Your task to perform on an android device: Show me recent news Image 0: 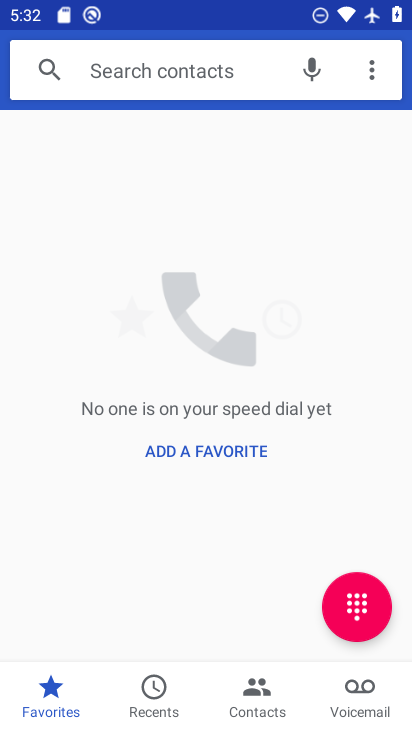
Step 0: press back button
Your task to perform on an android device: Show me recent news Image 1: 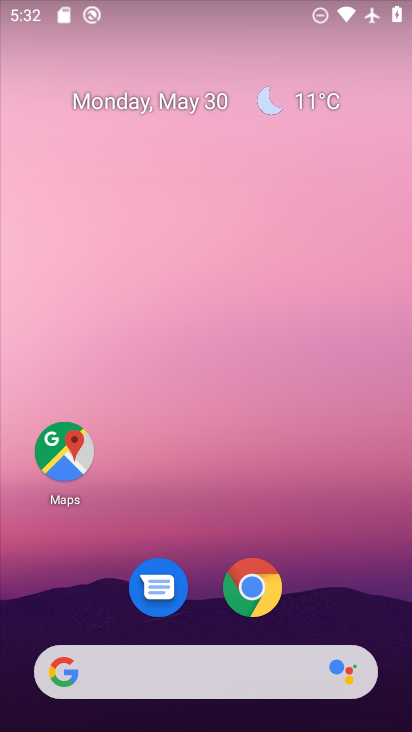
Step 1: drag from (316, 598) to (201, 34)
Your task to perform on an android device: Show me recent news Image 2: 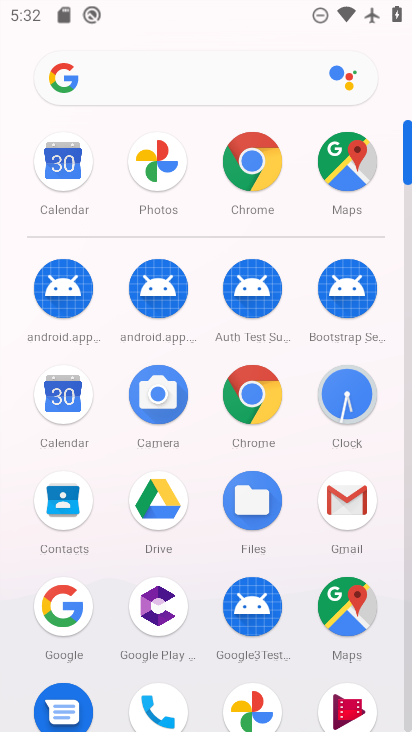
Step 2: click (248, 149)
Your task to perform on an android device: Show me recent news Image 3: 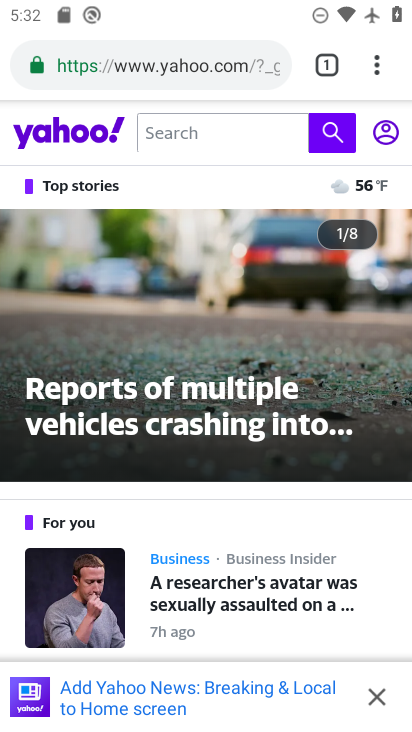
Step 3: click (173, 70)
Your task to perform on an android device: Show me recent news Image 4: 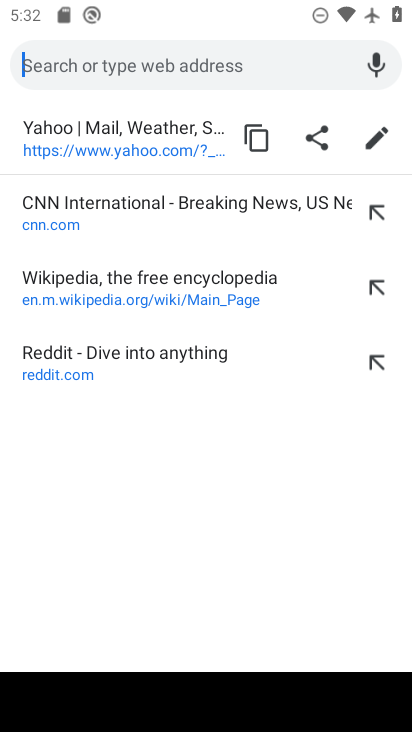
Step 4: type "Show me recent news"
Your task to perform on an android device: Show me recent news Image 5: 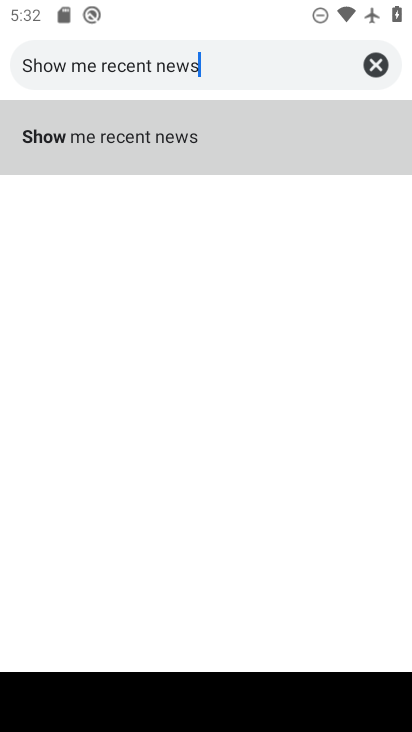
Step 5: type ""
Your task to perform on an android device: Show me recent news Image 6: 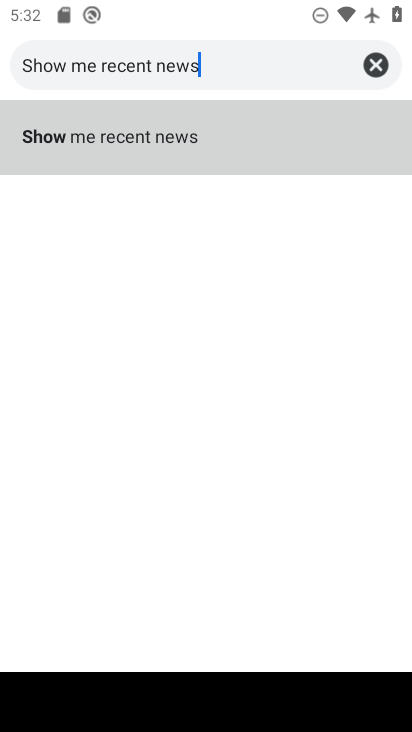
Step 6: click (148, 117)
Your task to perform on an android device: Show me recent news Image 7: 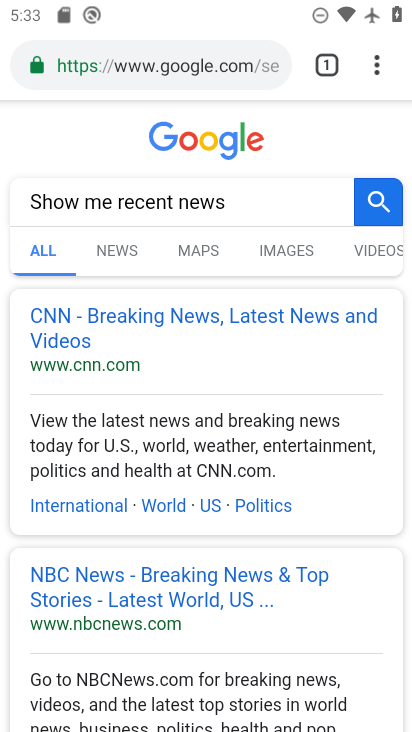
Step 7: click (121, 258)
Your task to perform on an android device: Show me recent news Image 8: 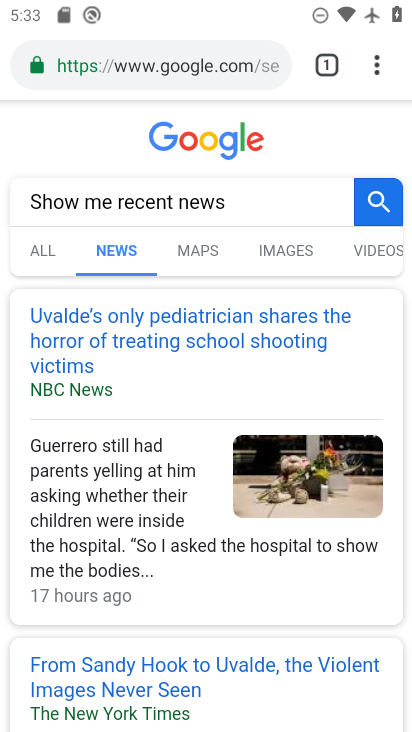
Step 8: task complete